Your task to perform on an android device: turn on location history Image 0: 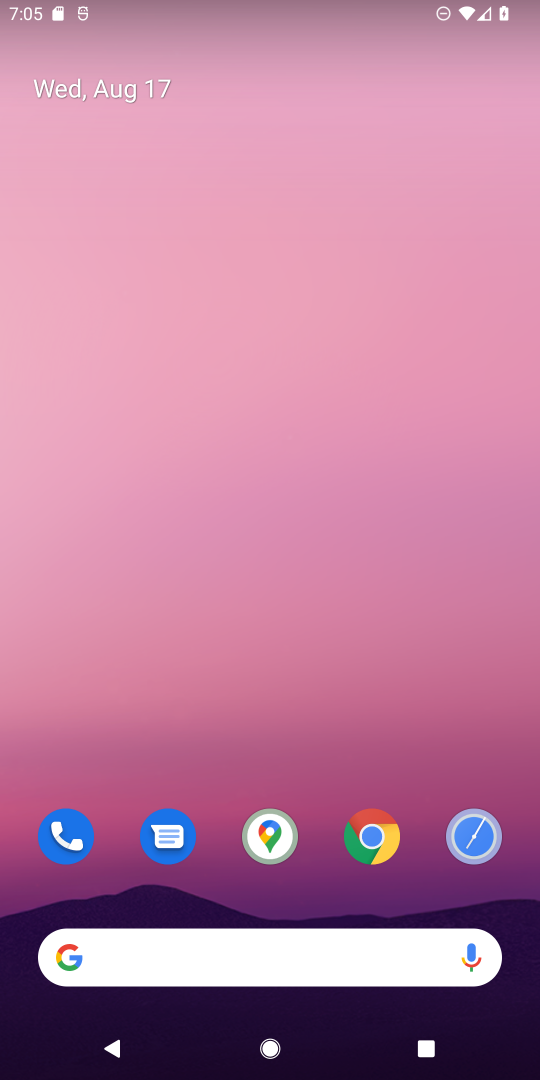
Step 0: drag from (199, 586) to (214, 163)
Your task to perform on an android device: turn on location history Image 1: 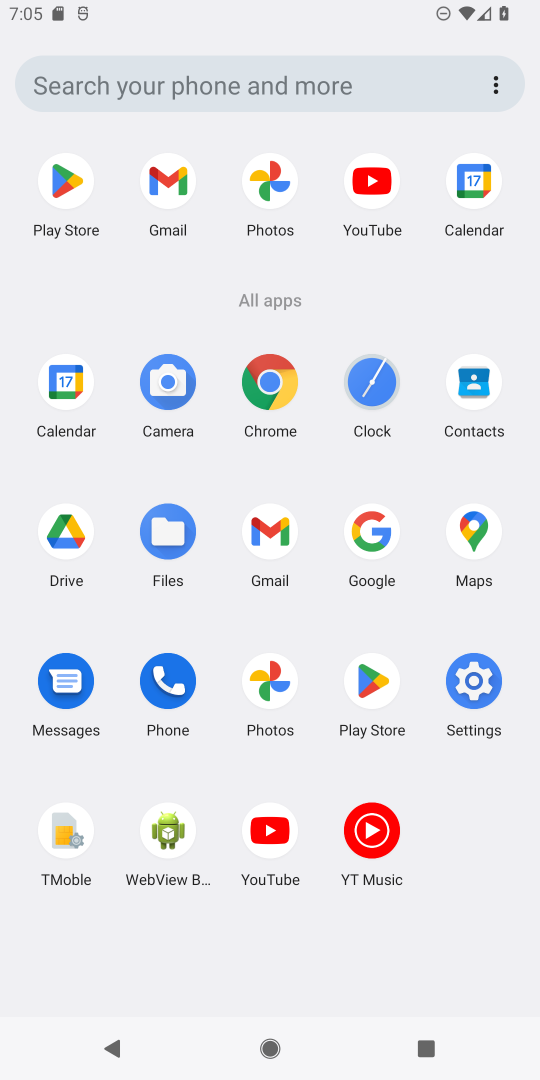
Step 1: click (469, 695)
Your task to perform on an android device: turn on location history Image 2: 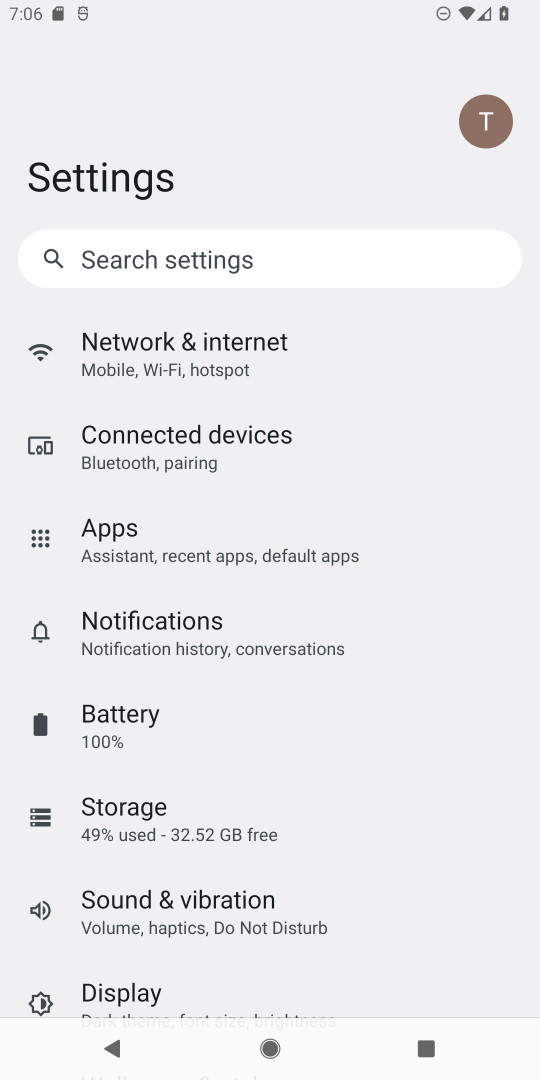
Step 2: drag from (247, 925) to (338, 181)
Your task to perform on an android device: turn on location history Image 3: 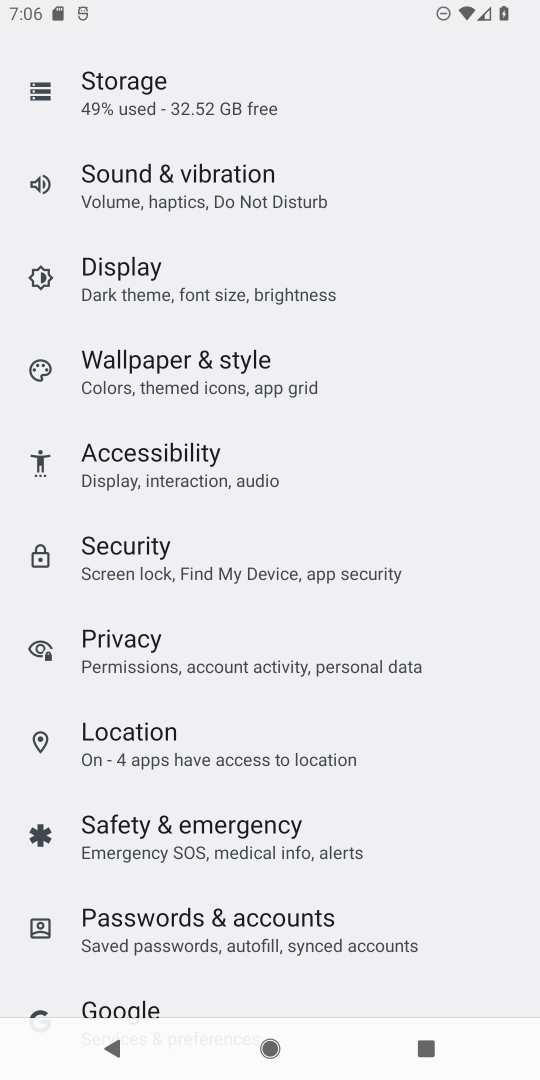
Step 3: click (201, 752)
Your task to perform on an android device: turn on location history Image 4: 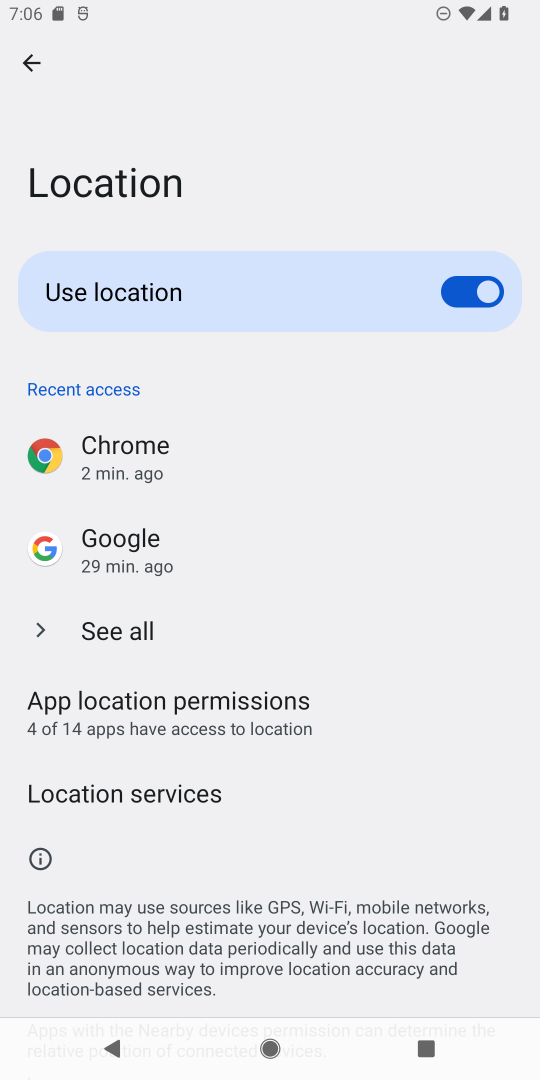
Step 4: click (187, 802)
Your task to perform on an android device: turn on location history Image 5: 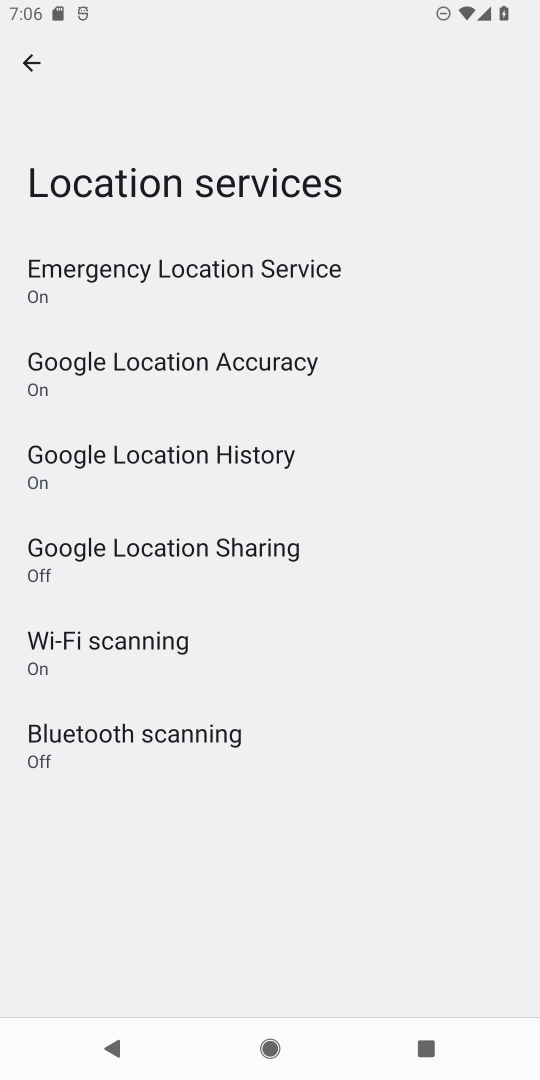
Step 5: click (120, 480)
Your task to perform on an android device: turn on location history Image 6: 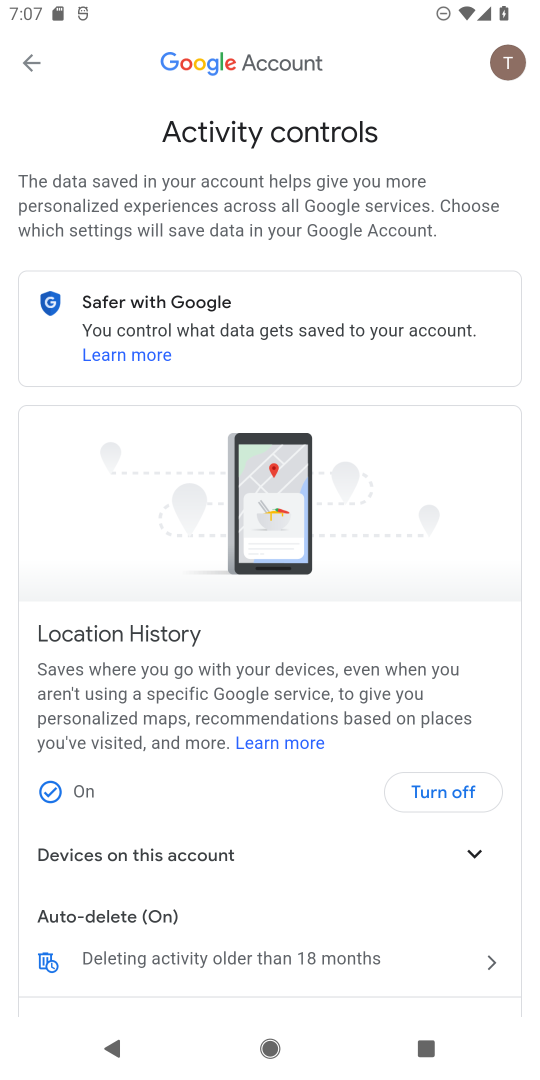
Step 6: task complete